Your task to perform on an android device: open chrome privacy settings Image 0: 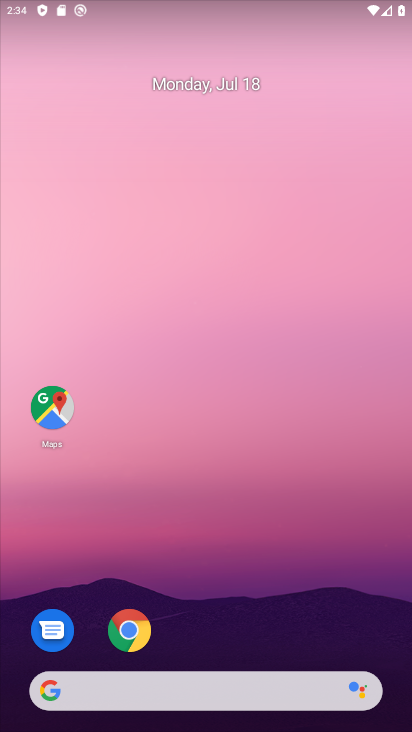
Step 0: drag from (232, 676) to (344, 77)
Your task to perform on an android device: open chrome privacy settings Image 1: 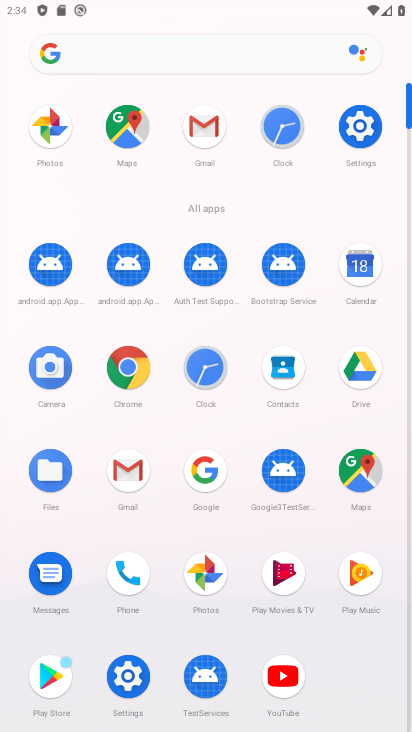
Step 1: click (122, 364)
Your task to perform on an android device: open chrome privacy settings Image 2: 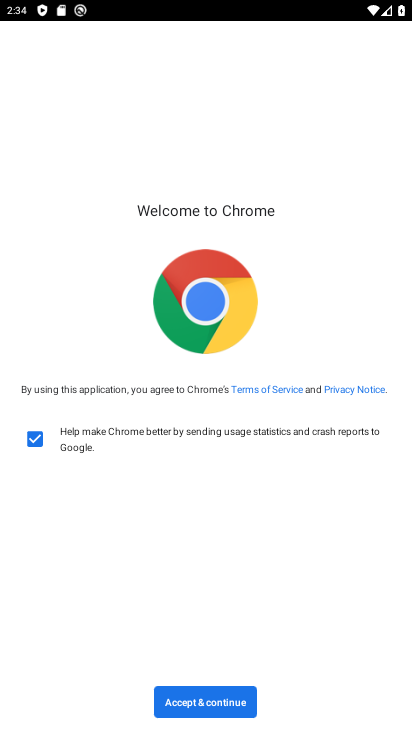
Step 2: click (223, 708)
Your task to perform on an android device: open chrome privacy settings Image 3: 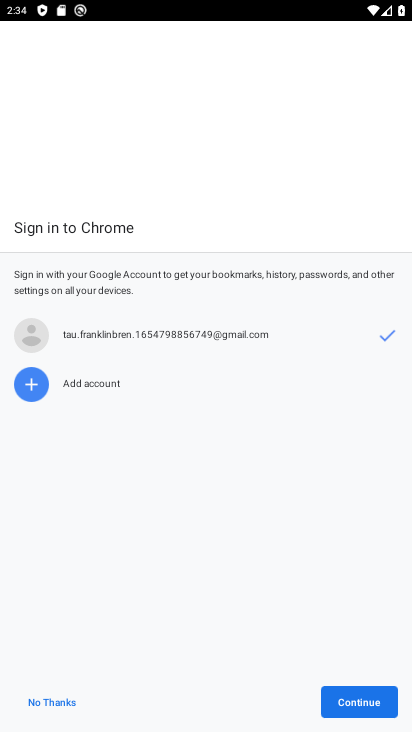
Step 3: click (383, 692)
Your task to perform on an android device: open chrome privacy settings Image 4: 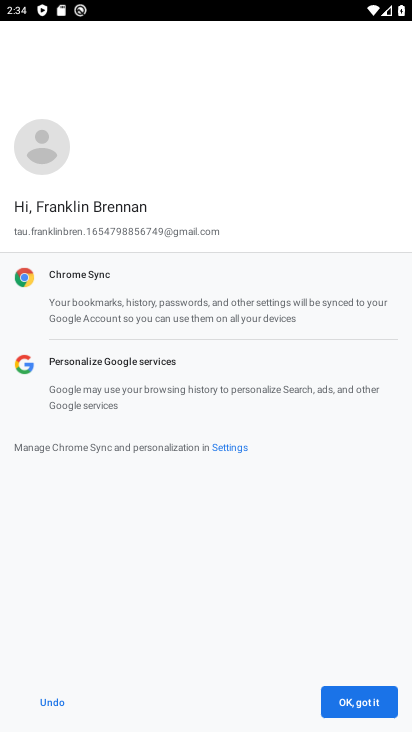
Step 4: click (389, 697)
Your task to perform on an android device: open chrome privacy settings Image 5: 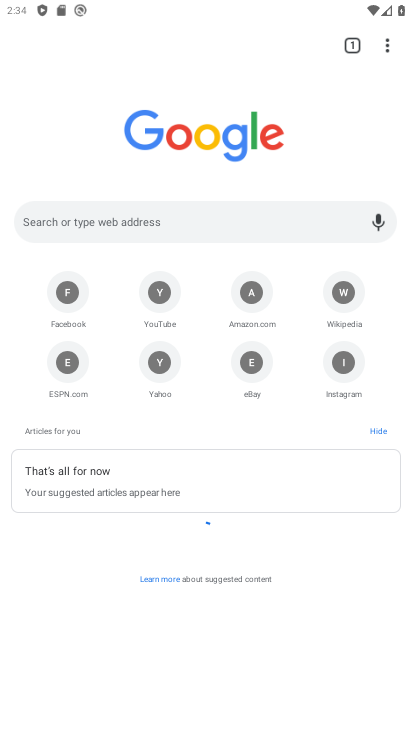
Step 5: drag from (388, 43) to (295, 374)
Your task to perform on an android device: open chrome privacy settings Image 6: 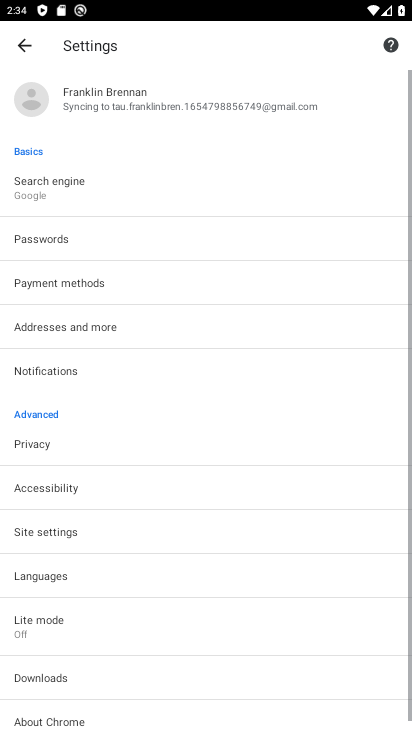
Step 6: click (190, 444)
Your task to perform on an android device: open chrome privacy settings Image 7: 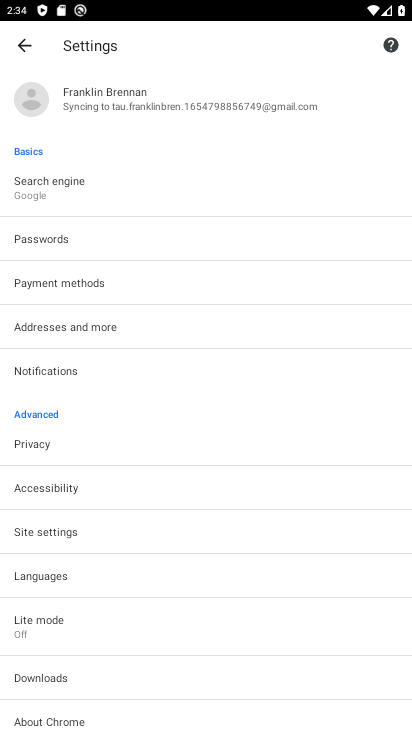
Step 7: click (250, 456)
Your task to perform on an android device: open chrome privacy settings Image 8: 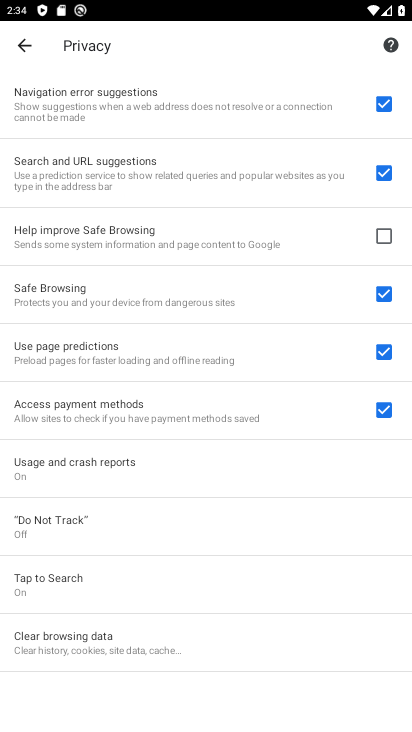
Step 8: task complete